Your task to perform on an android device: open chrome privacy settings Image 0: 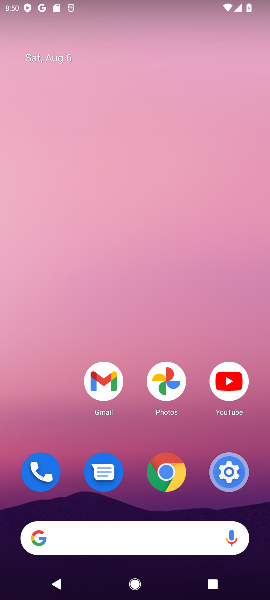
Step 0: click (226, 476)
Your task to perform on an android device: open chrome privacy settings Image 1: 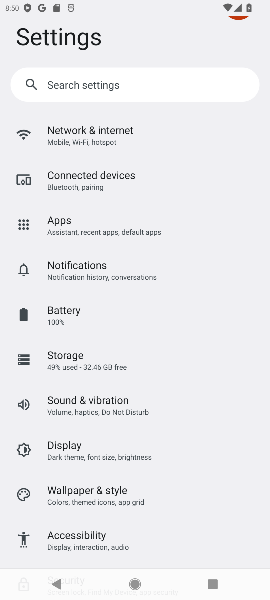
Step 1: drag from (211, 529) to (239, 280)
Your task to perform on an android device: open chrome privacy settings Image 2: 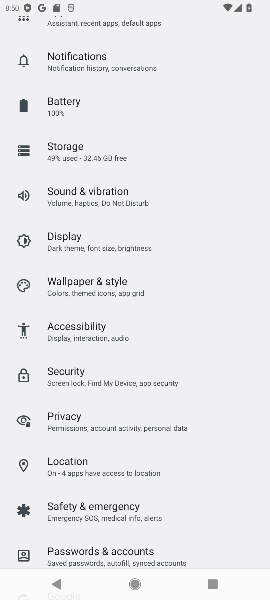
Step 2: click (56, 423)
Your task to perform on an android device: open chrome privacy settings Image 3: 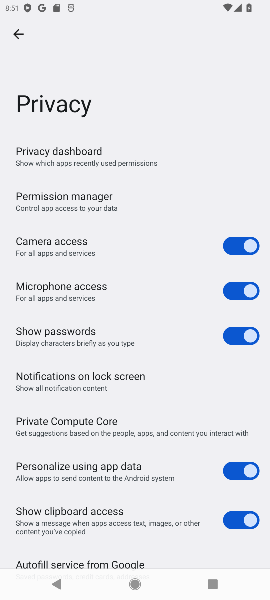
Step 3: task complete